Your task to perform on an android device: Search for the best gaming mouse on Best Buy. Image 0: 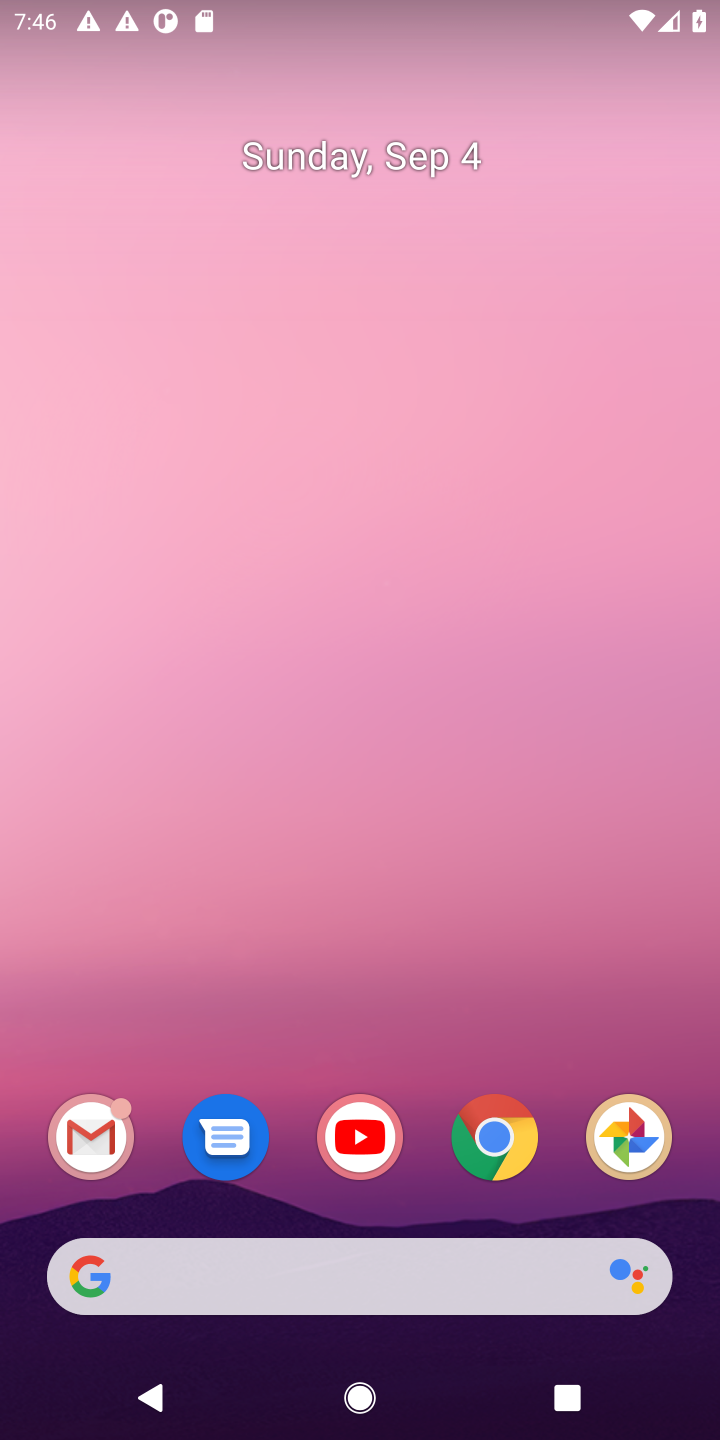
Step 0: click (497, 1142)
Your task to perform on an android device: Search for the best gaming mouse on Best Buy. Image 1: 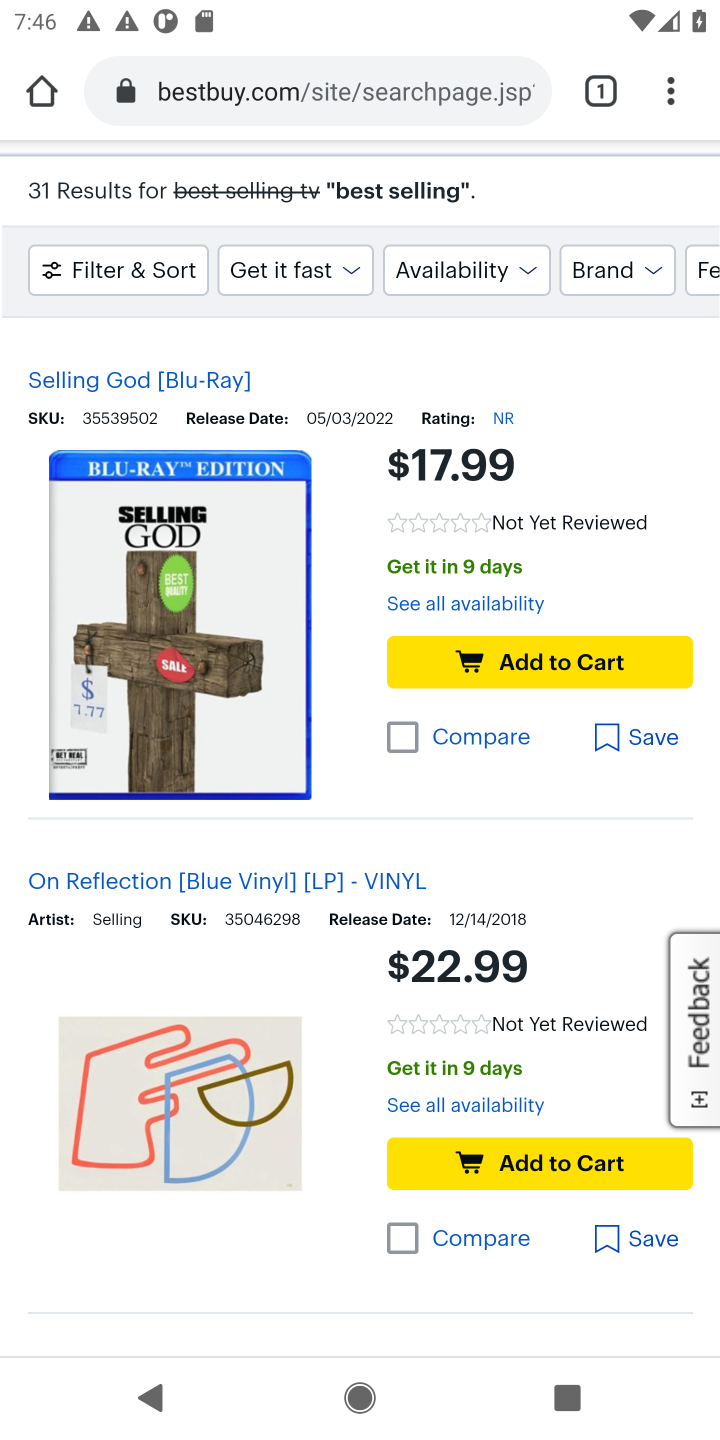
Step 1: click (408, 86)
Your task to perform on an android device: Search for the best gaming mouse on Best Buy. Image 2: 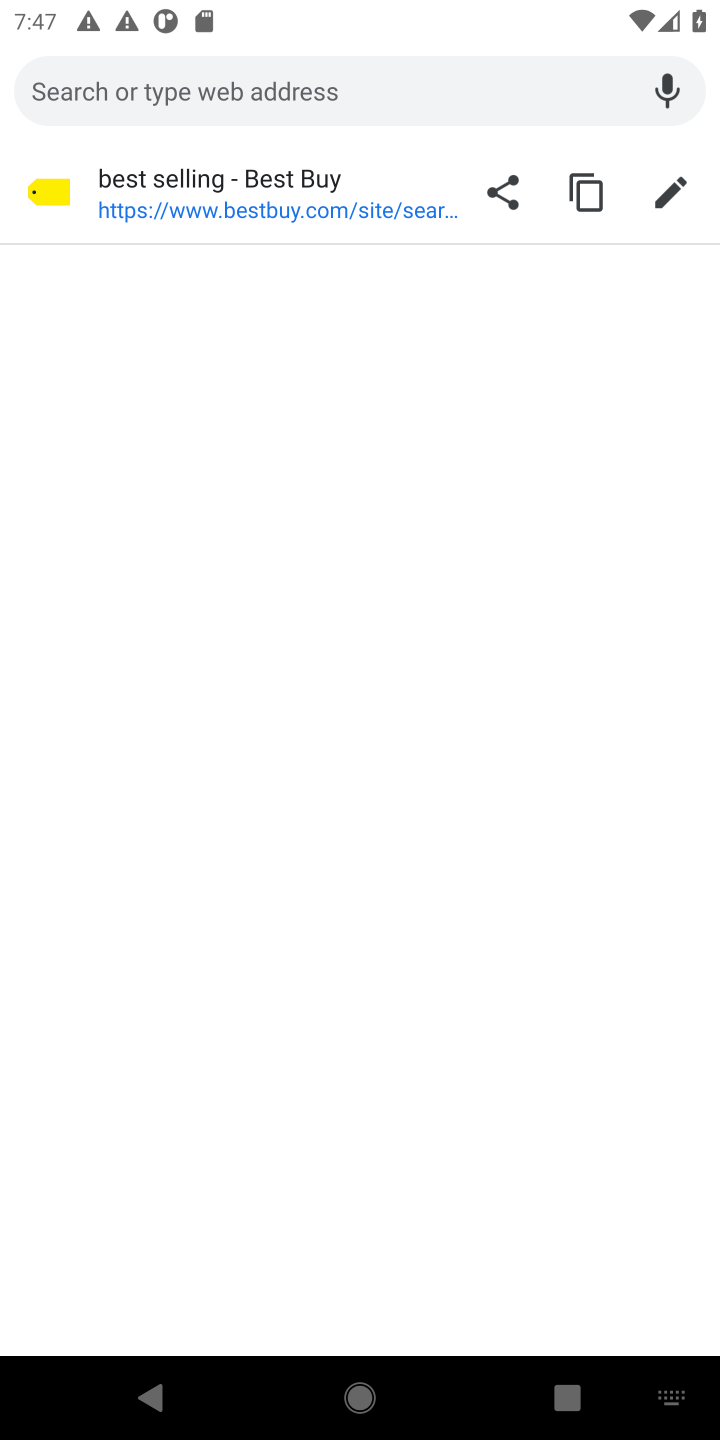
Step 2: type "Best Buy"
Your task to perform on an android device: Search for the best gaming mouse on Best Buy. Image 3: 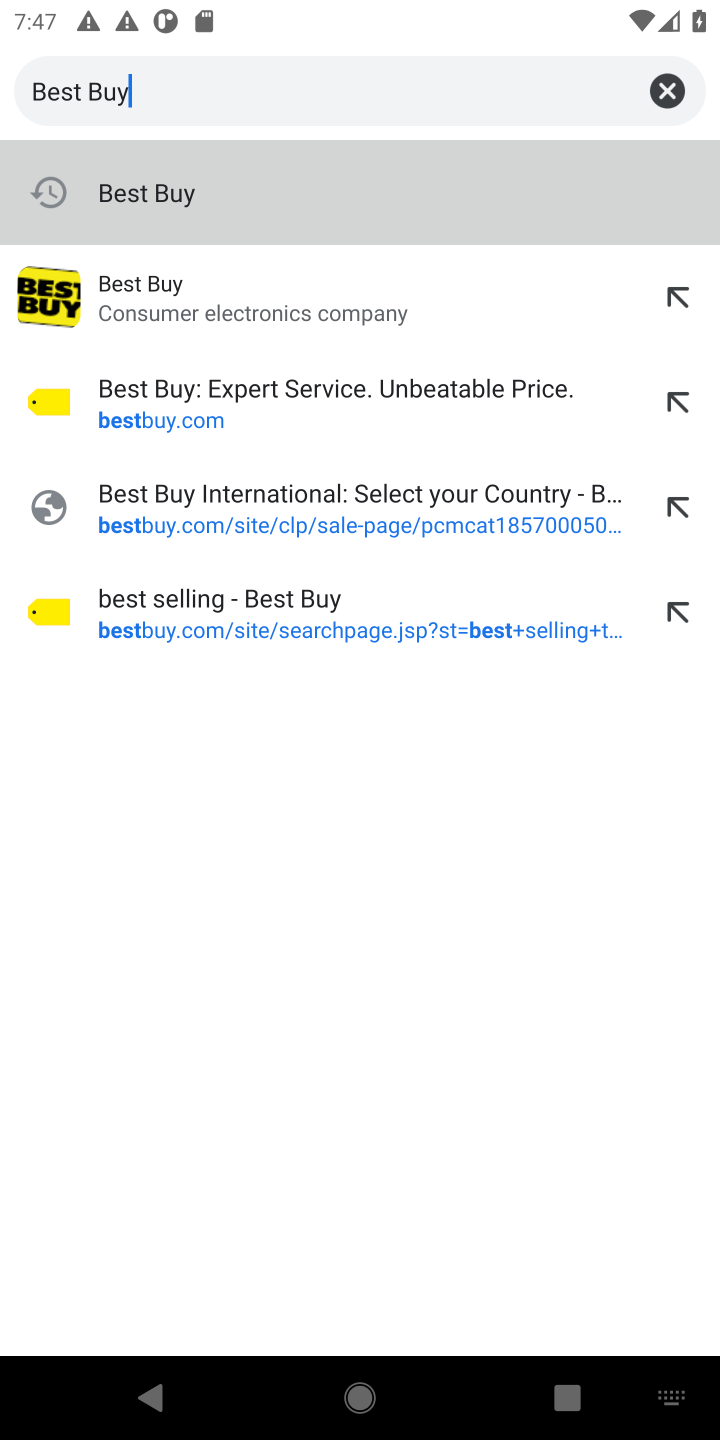
Step 3: click (156, 176)
Your task to perform on an android device: Search for the best gaming mouse on Best Buy. Image 4: 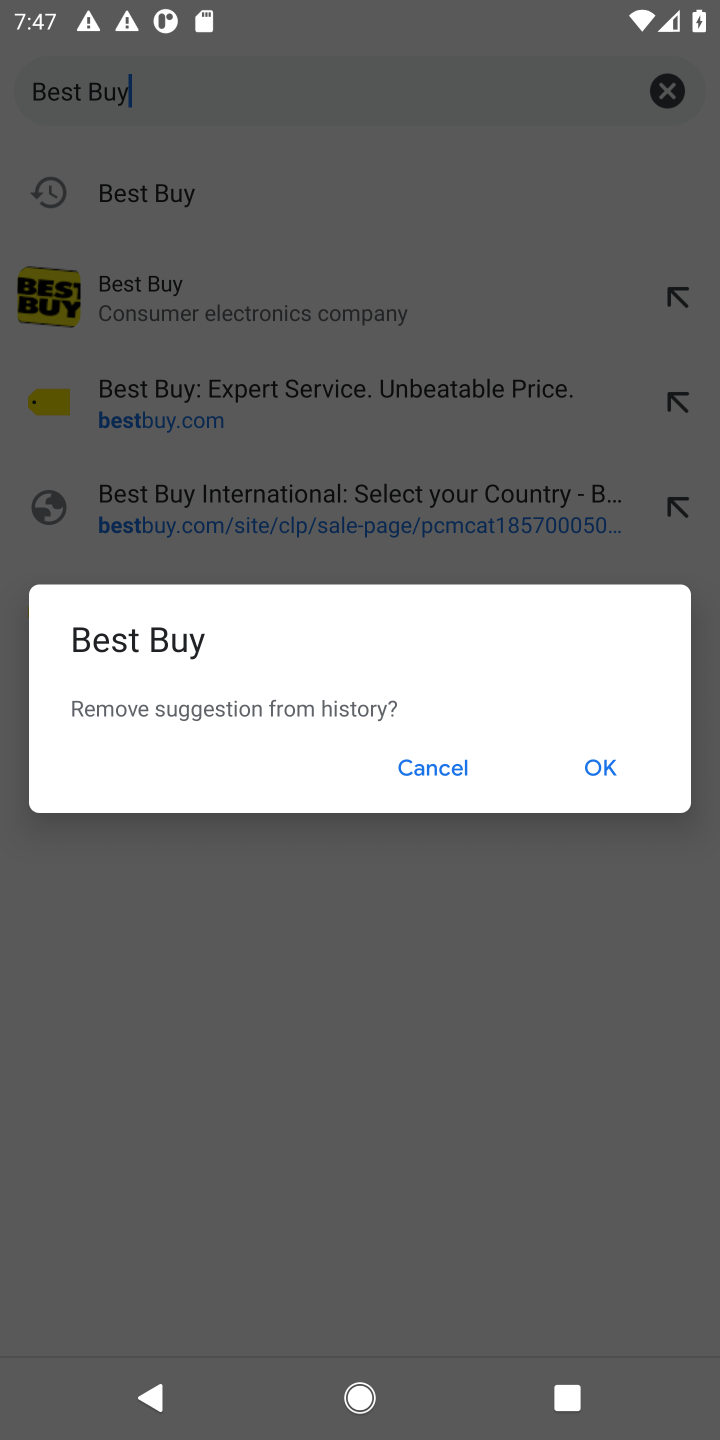
Step 4: click (327, 913)
Your task to perform on an android device: Search for the best gaming mouse on Best Buy. Image 5: 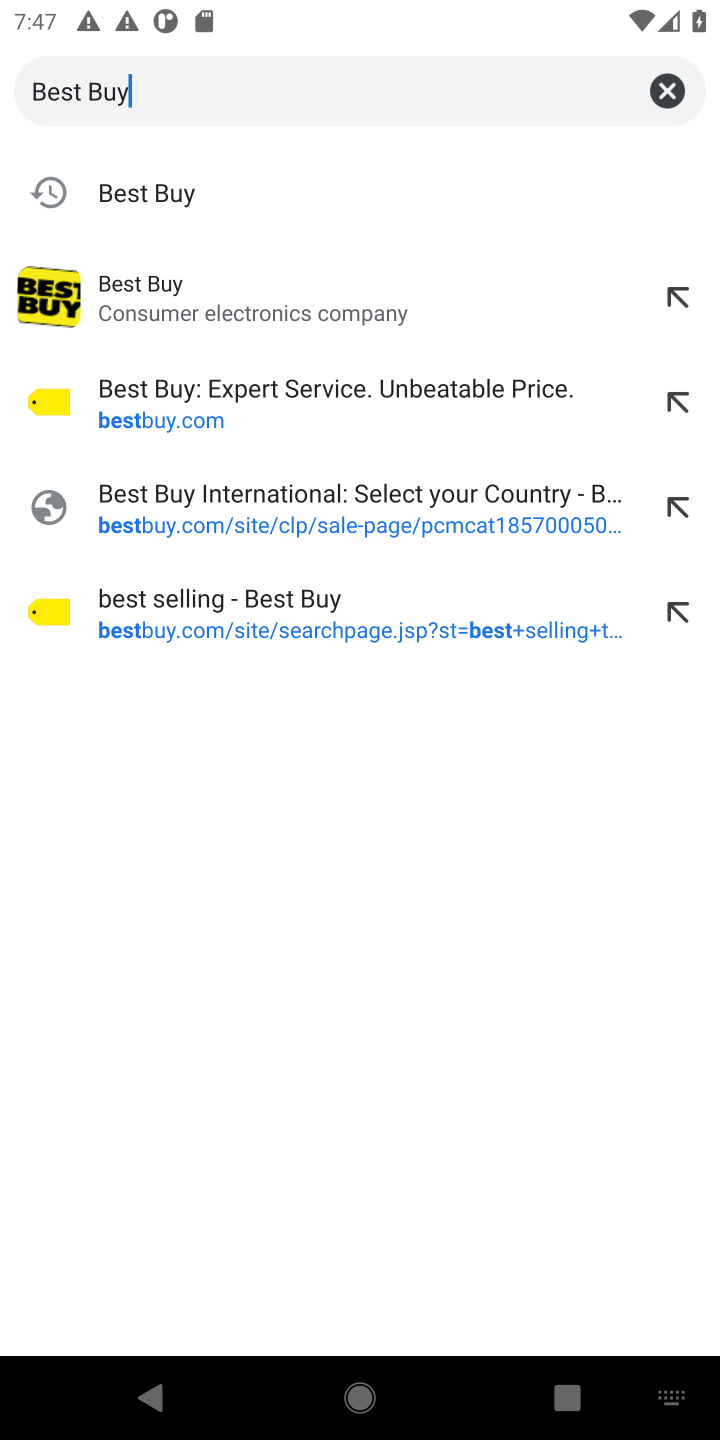
Step 5: click (176, 195)
Your task to perform on an android device: Search for the best gaming mouse on Best Buy. Image 6: 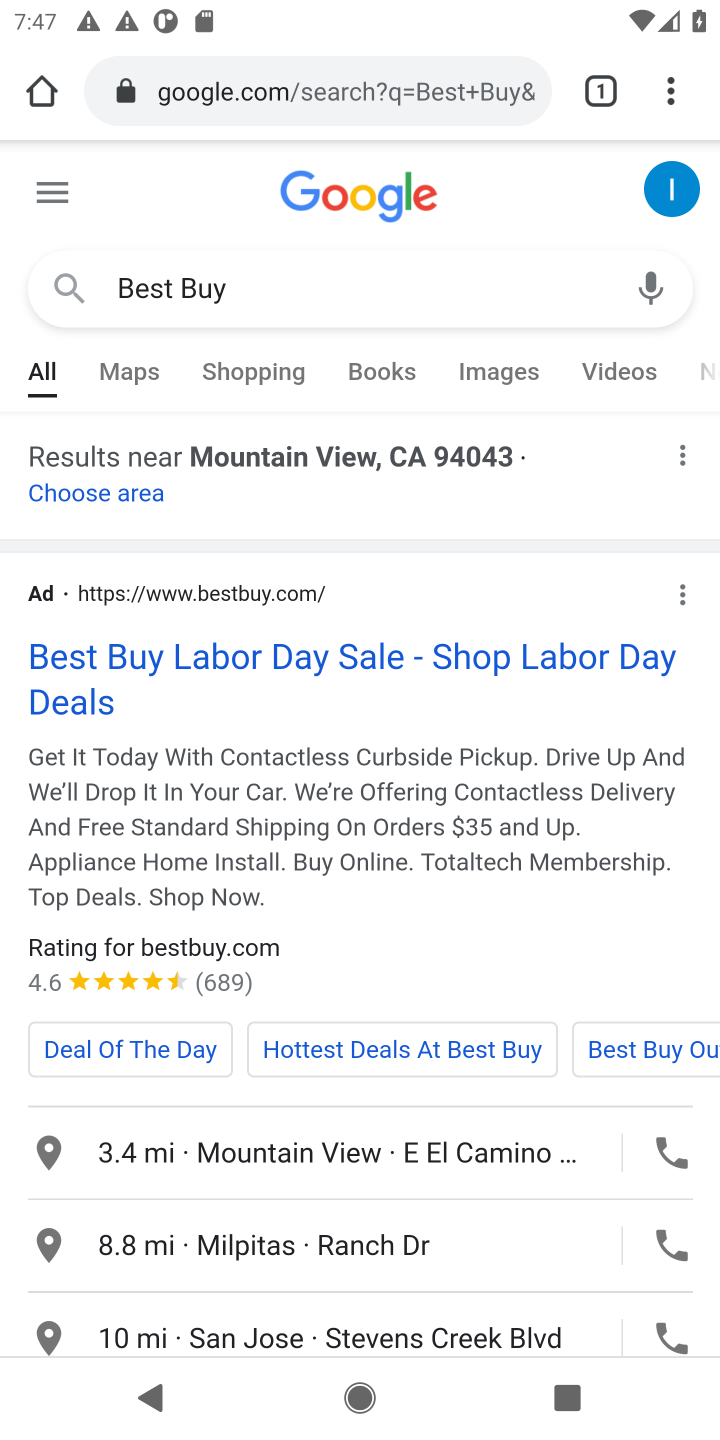
Step 6: drag from (322, 977) to (533, 469)
Your task to perform on an android device: Search for the best gaming mouse on Best Buy. Image 7: 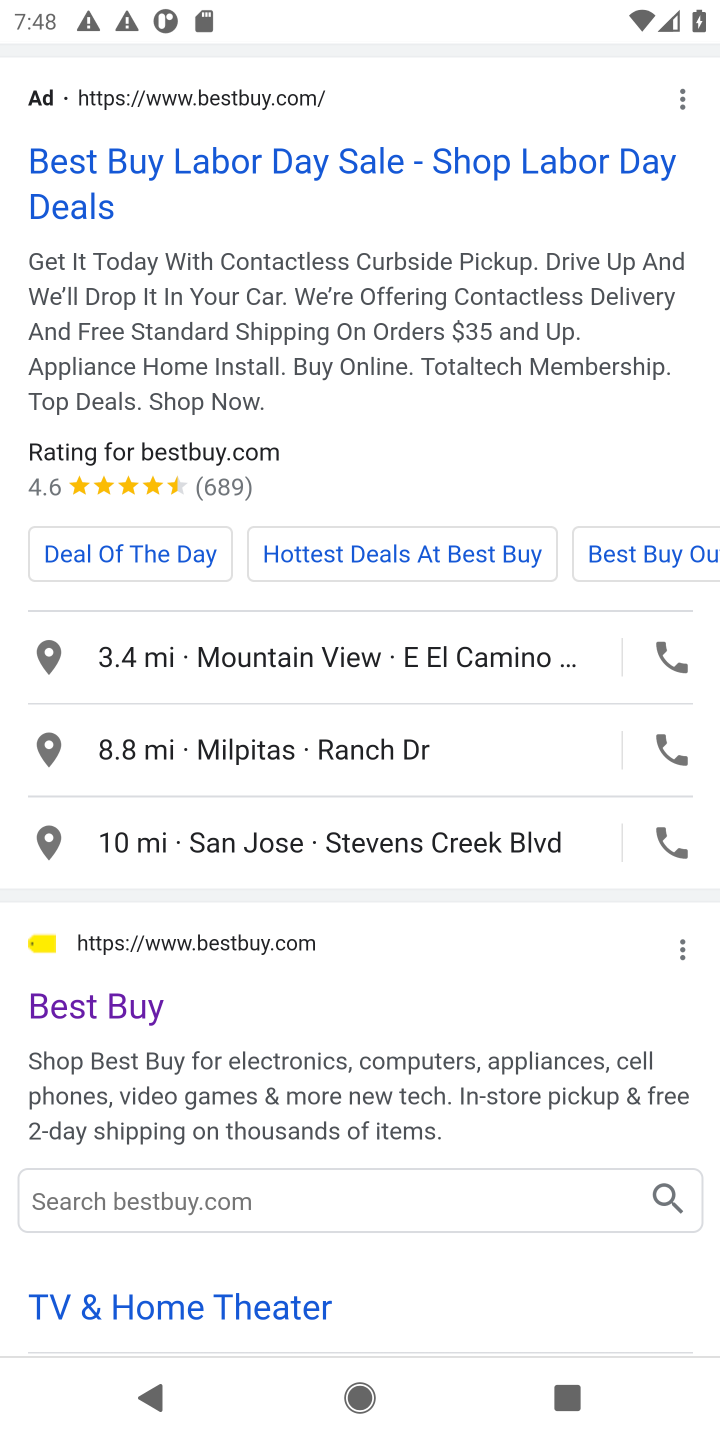
Step 7: click (183, 962)
Your task to perform on an android device: Search for the best gaming mouse on Best Buy. Image 8: 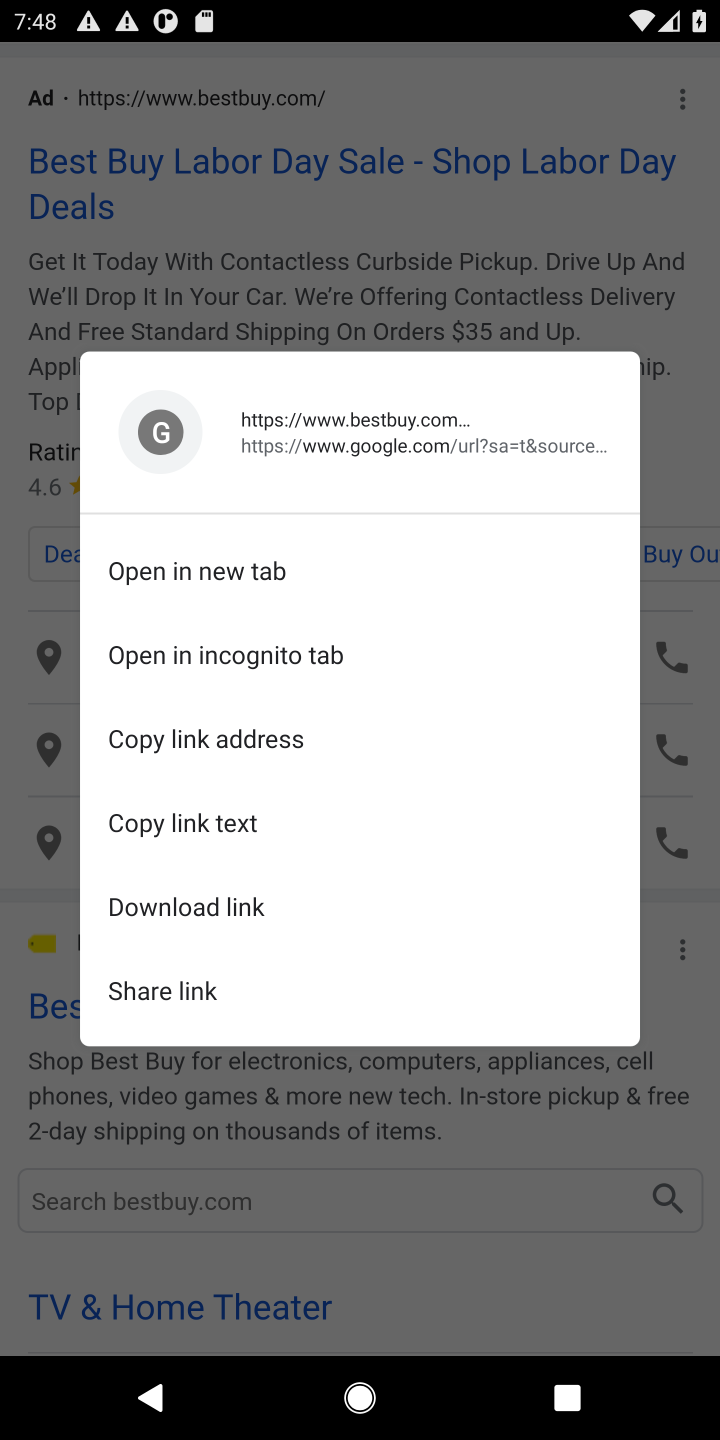
Step 8: click (15, 984)
Your task to perform on an android device: Search for the best gaming mouse on Best Buy. Image 9: 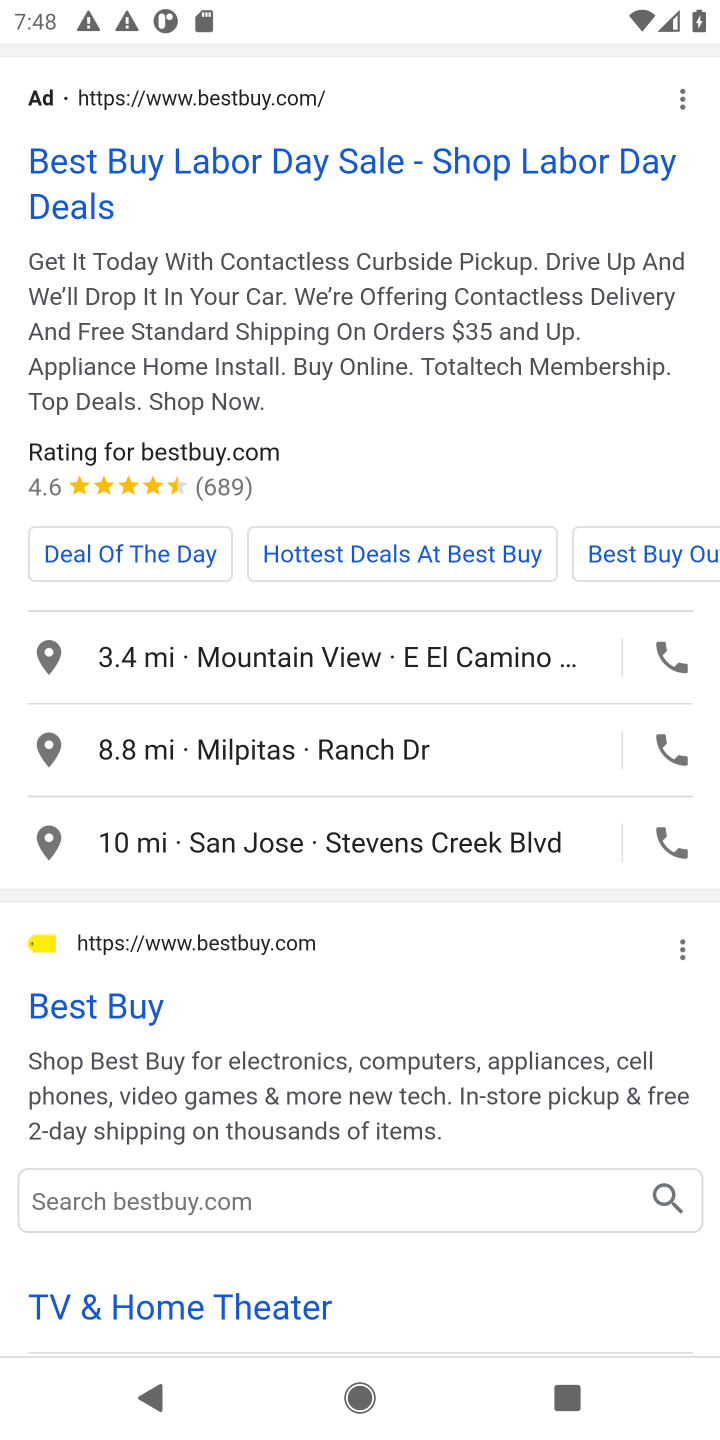
Step 9: click (48, 1001)
Your task to perform on an android device: Search for the best gaming mouse on Best Buy. Image 10: 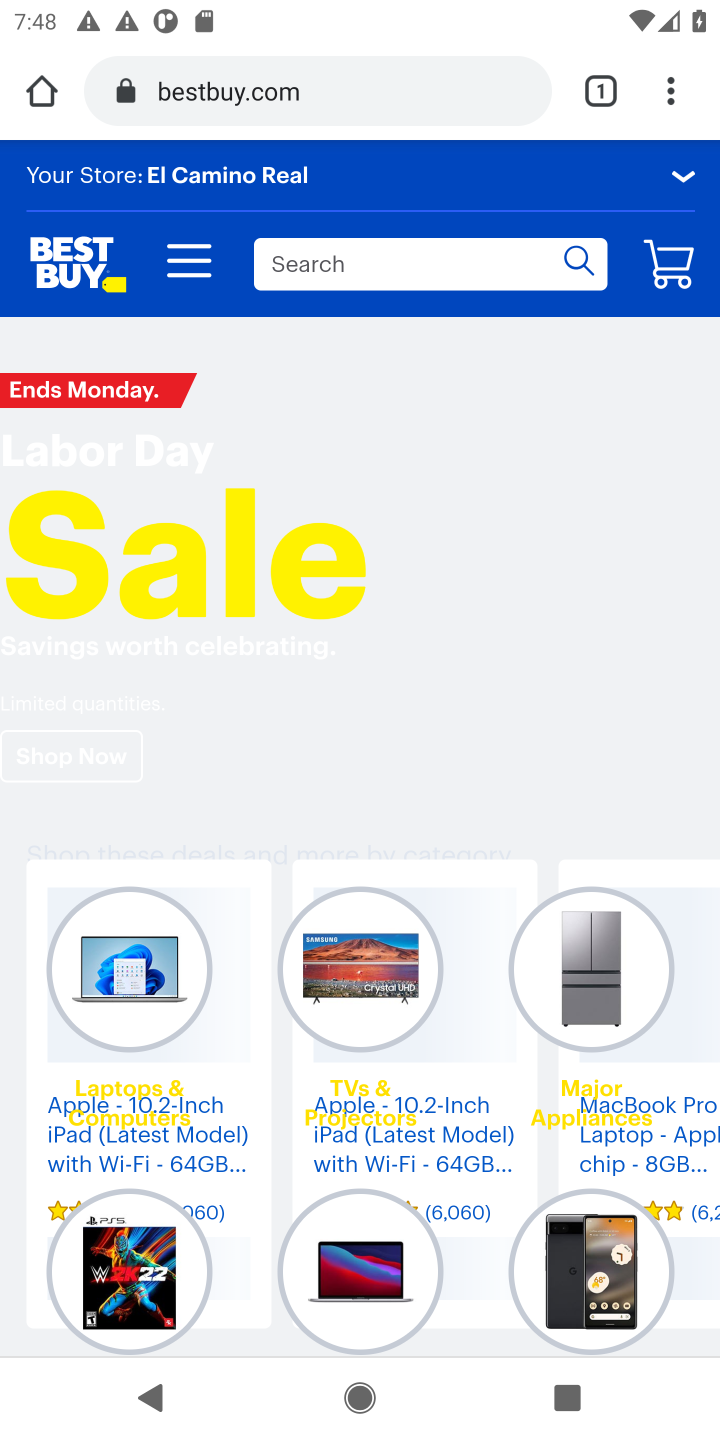
Step 10: click (395, 267)
Your task to perform on an android device: Search for the best gaming mouse on Best Buy. Image 11: 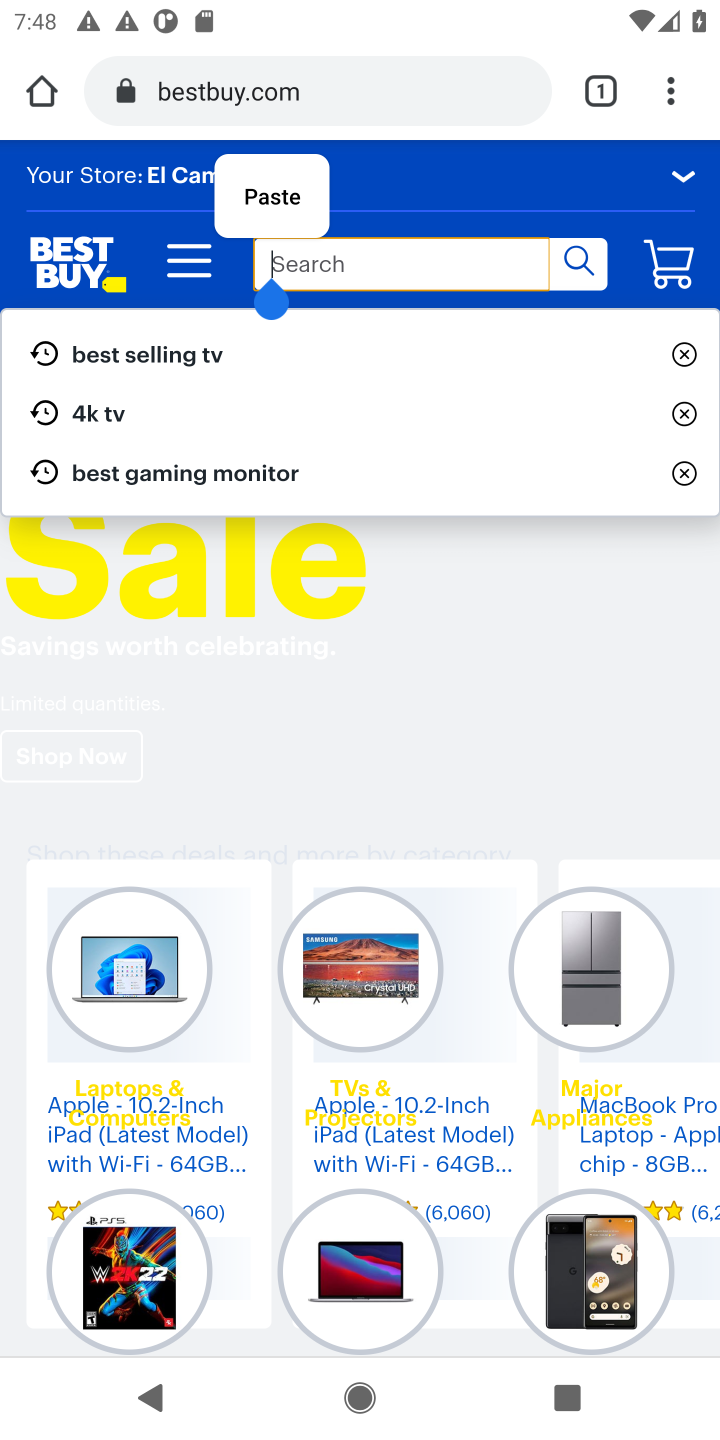
Step 11: type "best gaming mouse"
Your task to perform on an android device: Search for the best gaming mouse on Best Buy. Image 12: 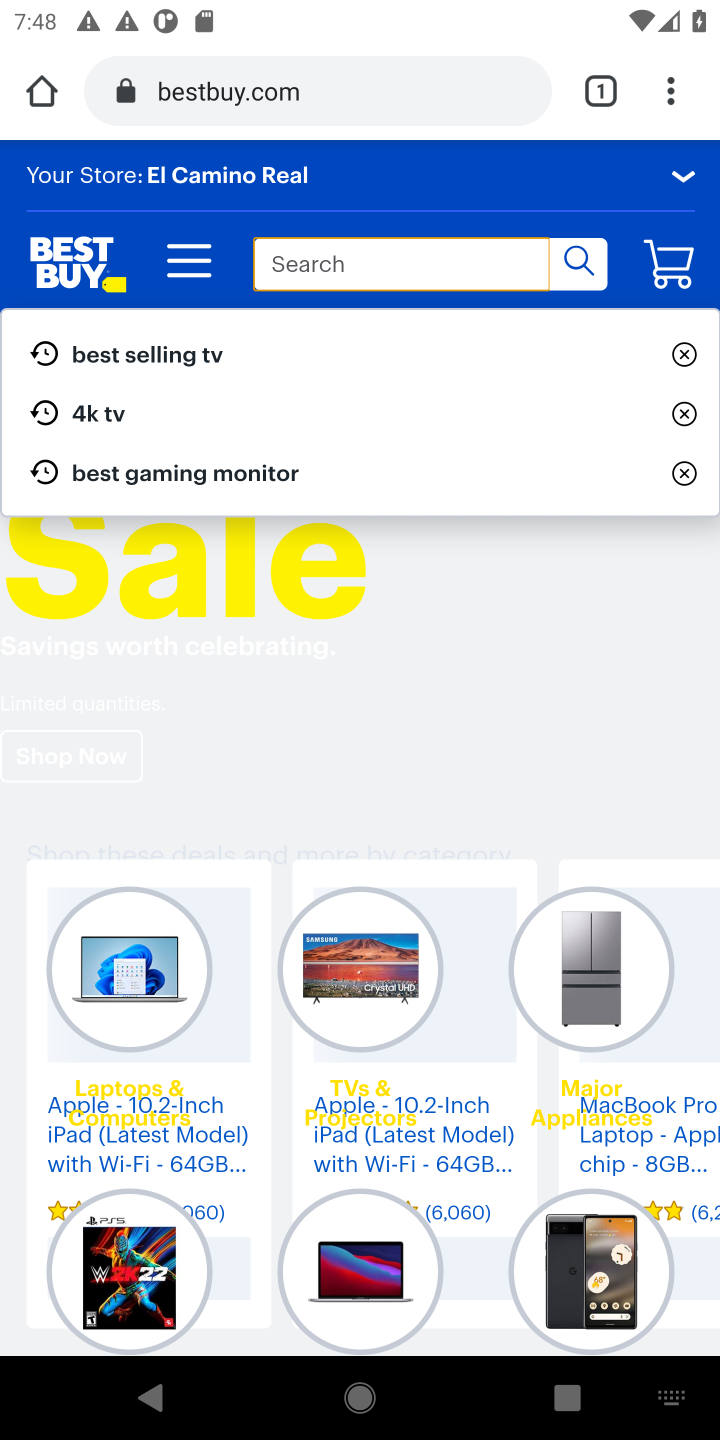
Step 12: type ""
Your task to perform on an android device: Search for the best gaming mouse on Best Buy. Image 13: 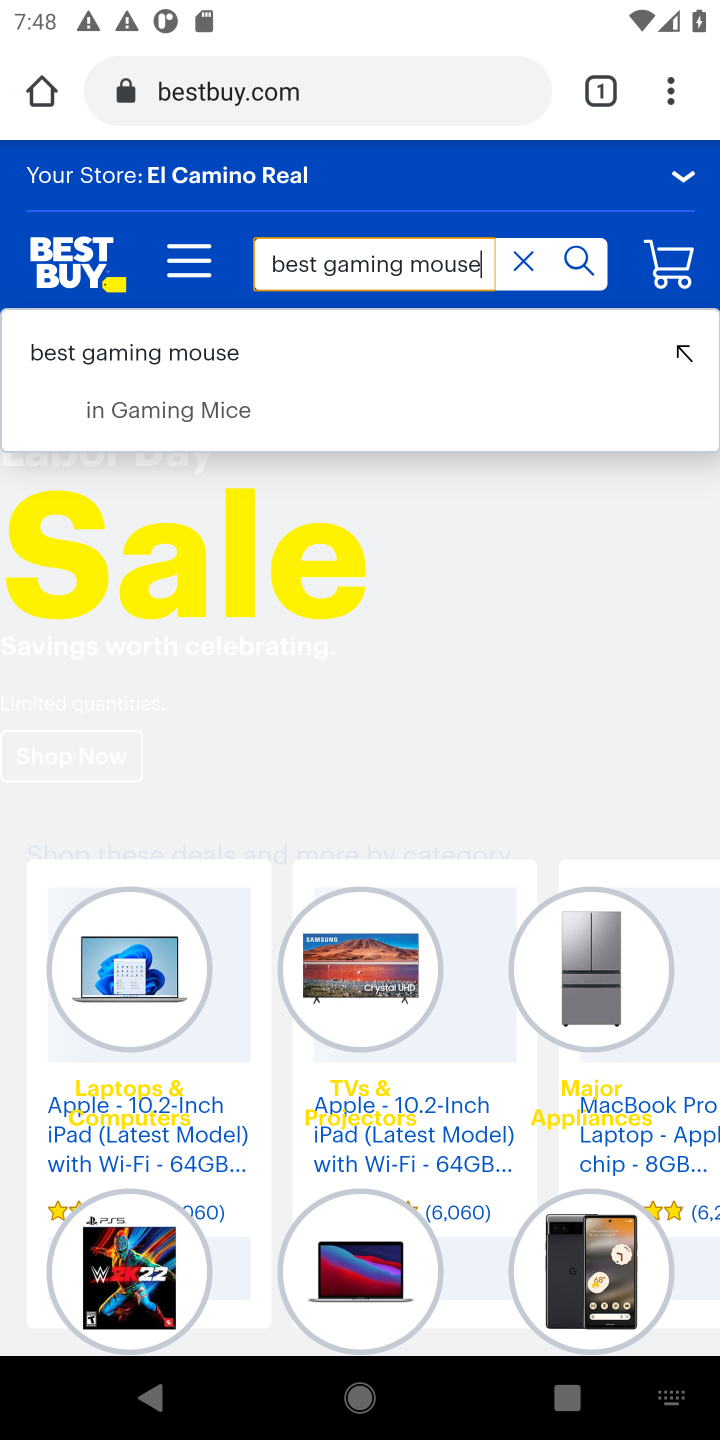
Step 13: click (567, 260)
Your task to perform on an android device: Search for the best gaming mouse on Best Buy. Image 14: 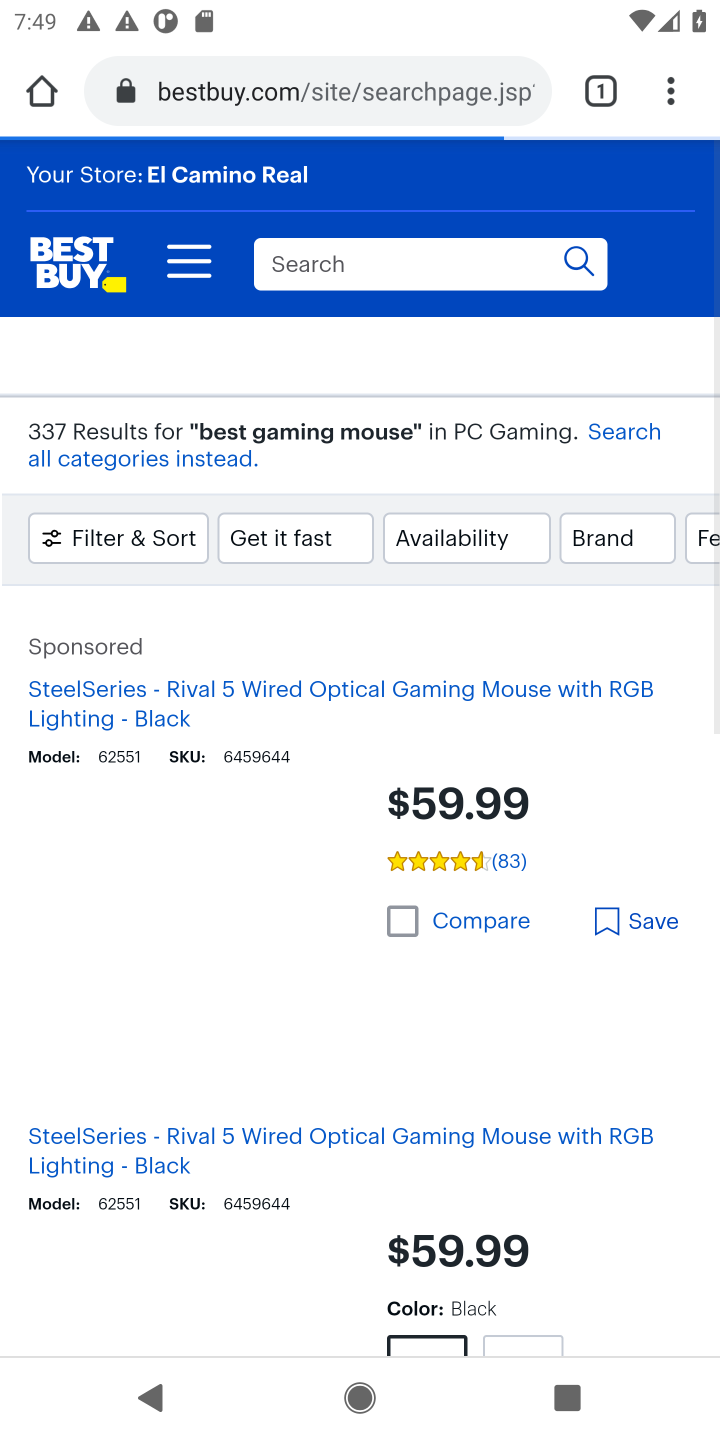
Step 14: click (208, 287)
Your task to perform on an android device: Search for the best gaming mouse on Best Buy. Image 15: 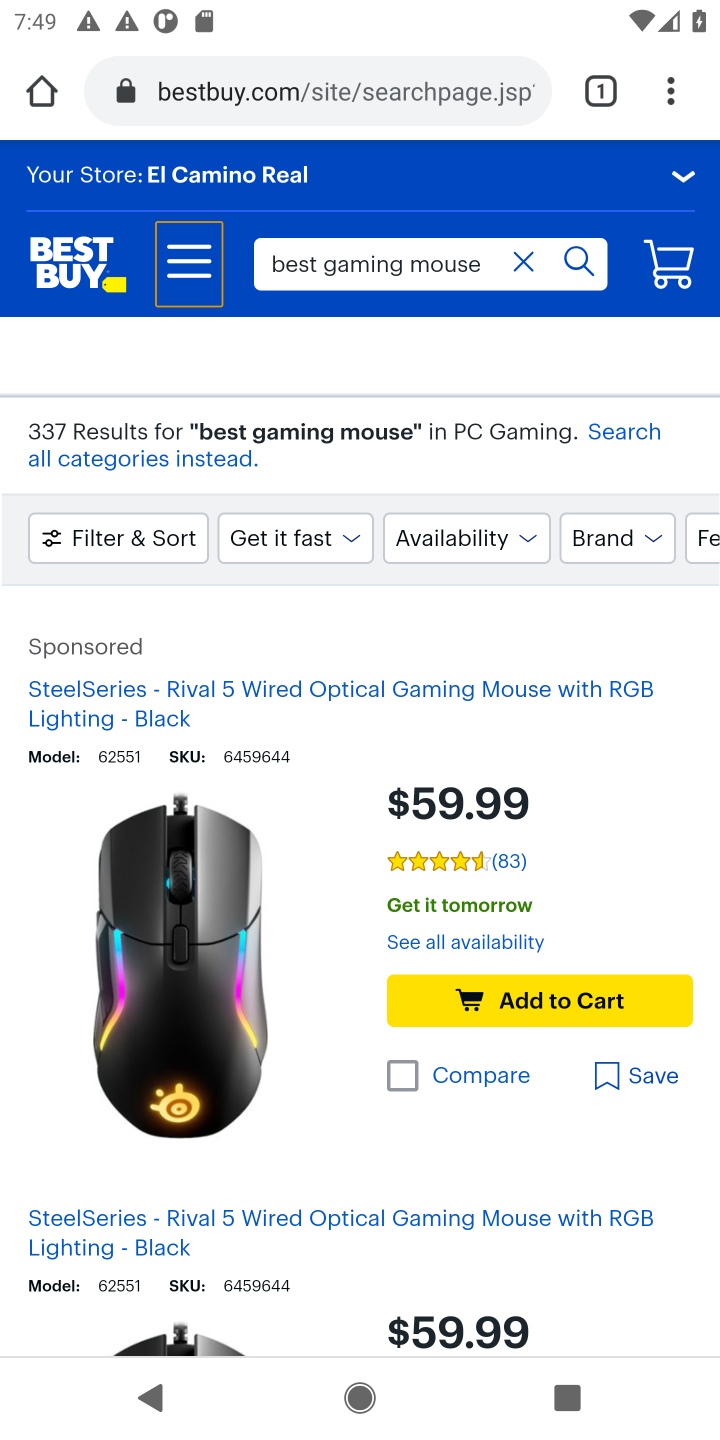
Step 15: task complete